Your task to perform on an android device: Open privacy settings Image 0: 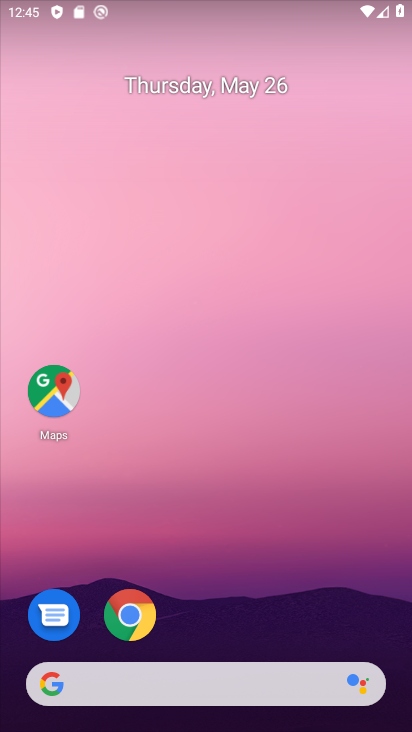
Step 0: drag from (292, 639) to (244, 94)
Your task to perform on an android device: Open privacy settings Image 1: 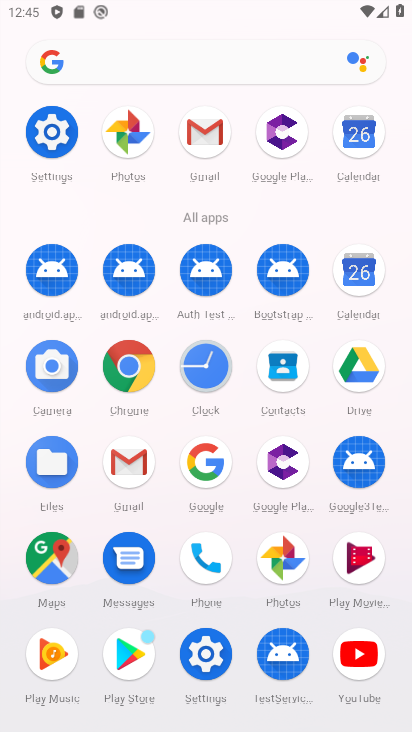
Step 1: click (198, 650)
Your task to perform on an android device: Open privacy settings Image 2: 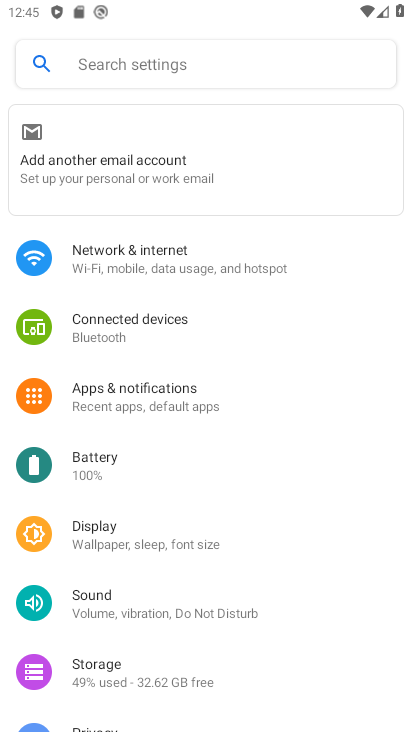
Step 2: drag from (163, 660) to (202, 362)
Your task to perform on an android device: Open privacy settings Image 3: 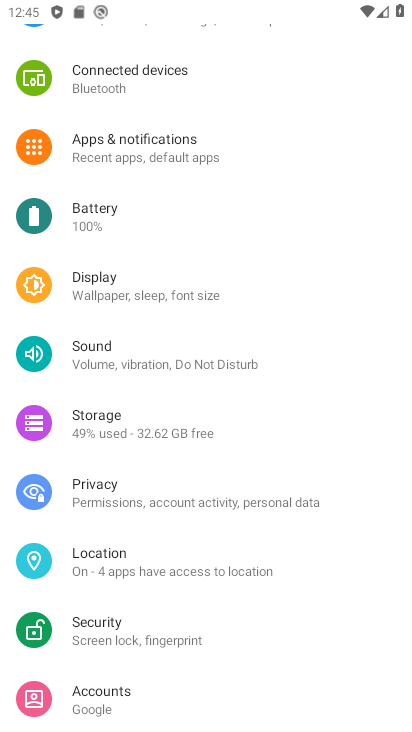
Step 3: click (120, 490)
Your task to perform on an android device: Open privacy settings Image 4: 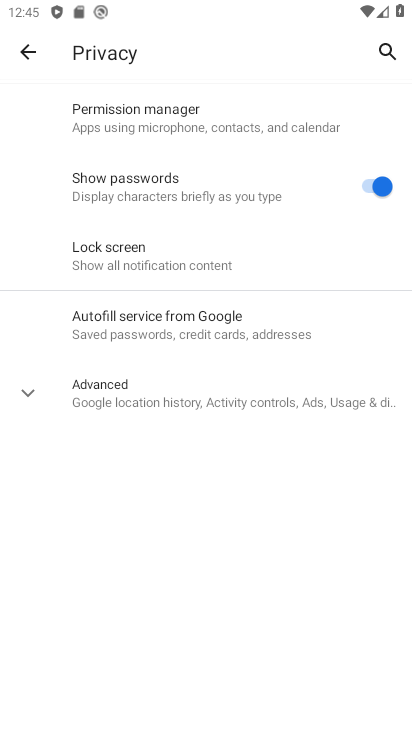
Step 4: task complete